Your task to perform on an android device: set an alarm Image 0: 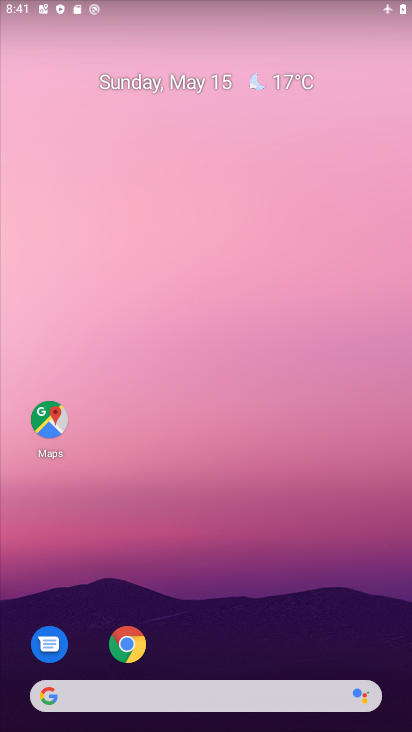
Step 0: drag from (268, 687) to (245, 174)
Your task to perform on an android device: set an alarm Image 1: 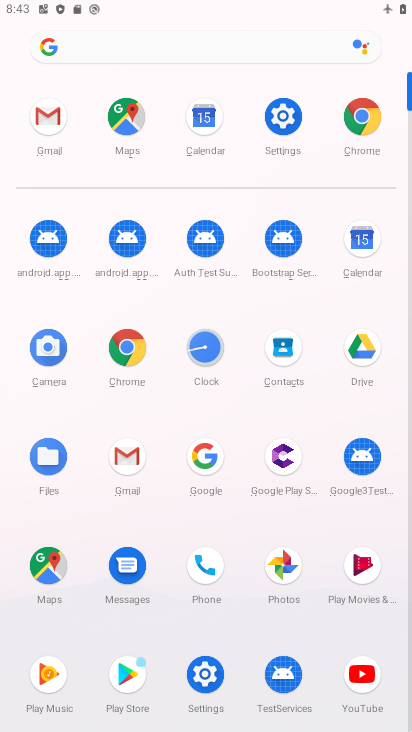
Step 1: click (217, 339)
Your task to perform on an android device: set an alarm Image 2: 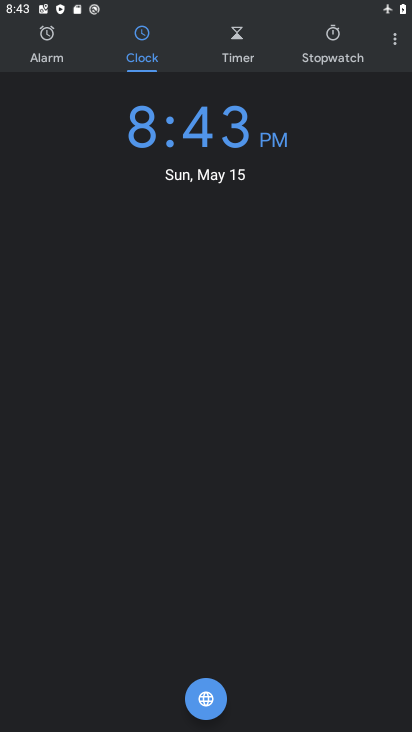
Step 2: click (46, 72)
Your task to perform on an android device: set an alarm Image 3: 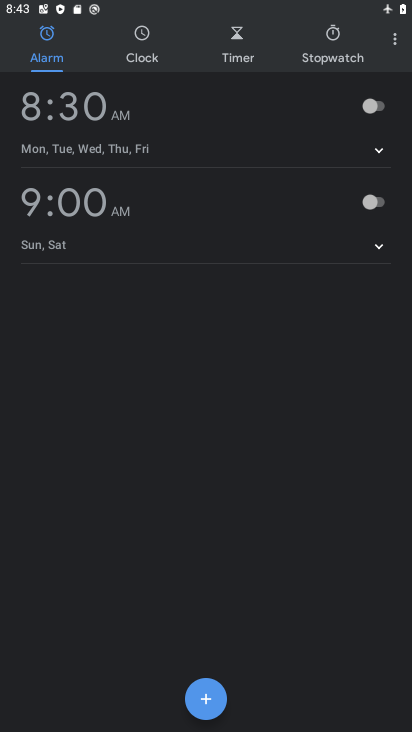
Step 3: click (352, 102)
Your task to perform on an android device: set an alarm Image 4: 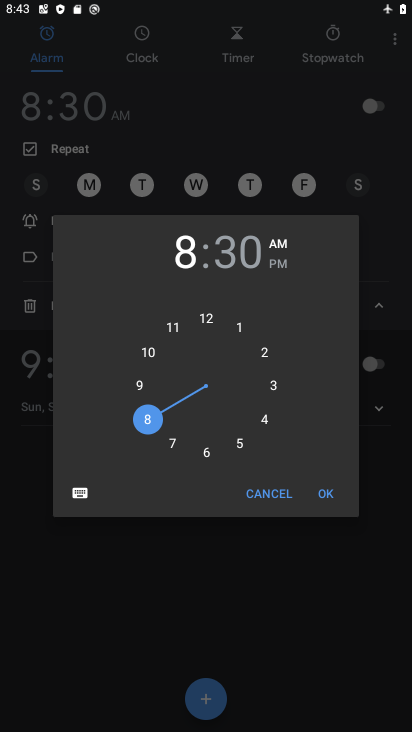
Step 4: task complete